Your task to perform on an android device: turn off location Image 0: 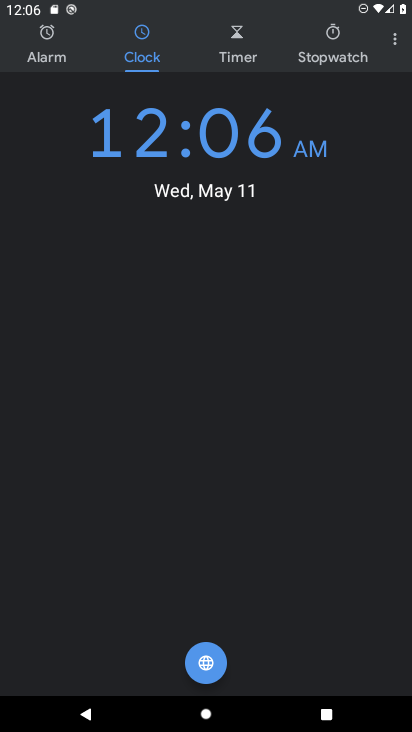
Step 0: press home button
Your task to perform on an android device: turn off location Image 1: 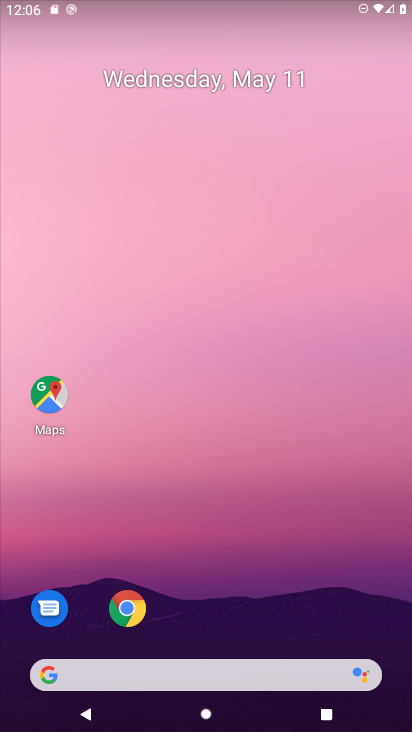
Step 1: drag from (289, 535) to (264, 27)
Your task to perform on an android device: turn off location Image 2: 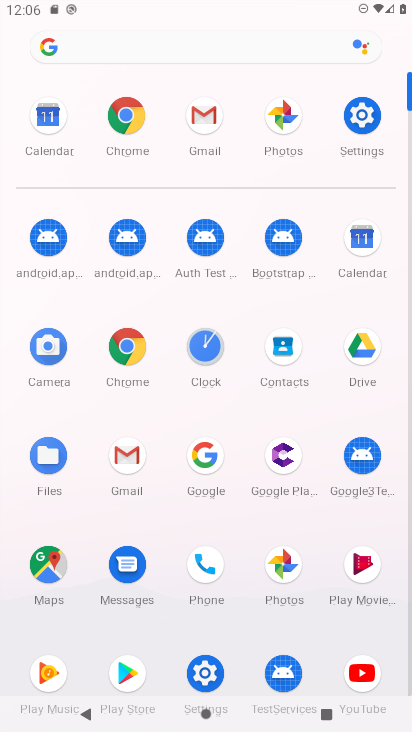
Step 2: click (347, 112)
Your task to perform on an android device: turn off location Image 3: 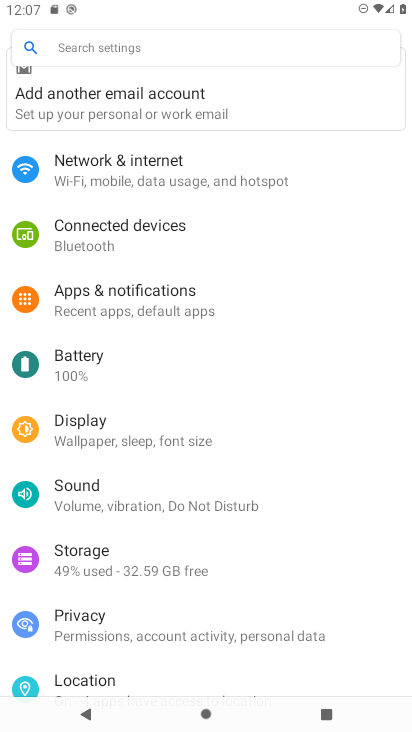
Step 3: drag from (184, 630) to (187, 425)
Your task to perform on an android device: turn off location Image 4: 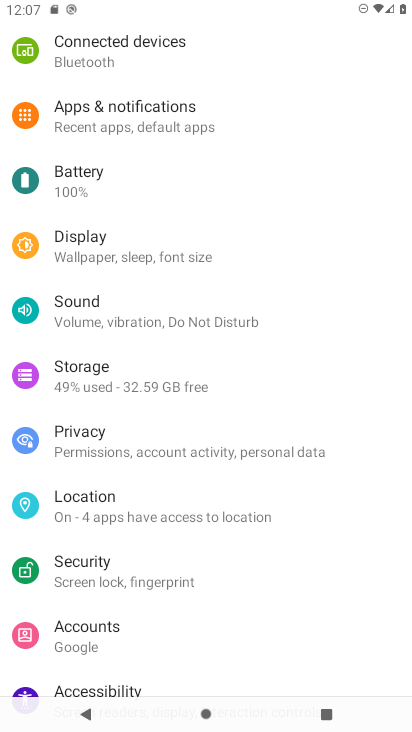
Step 4: click (184, 504)
Your task to perform on an android device: turn off location Image 5: 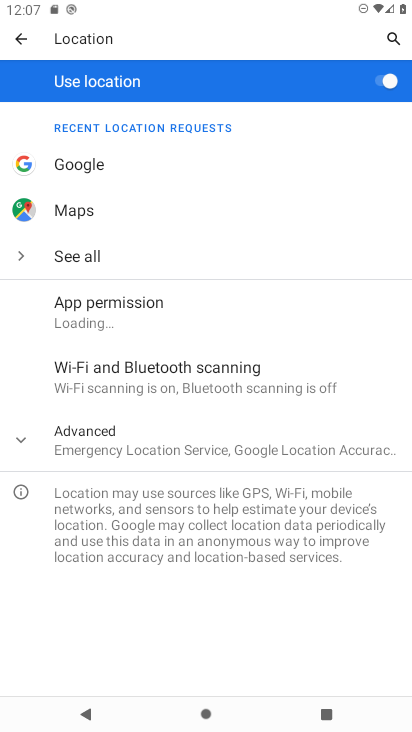
Step 5: click (378, 79)
Your task to perform on an android device: turn off location Image 6: 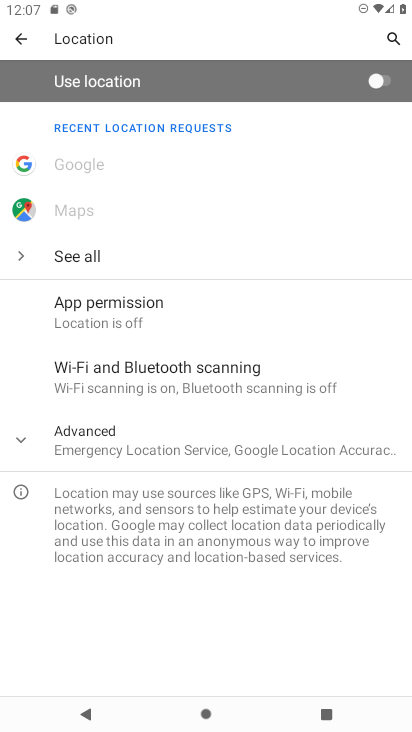
Step 6: task complete